Your task to perform on an android device: Open the map Image 0: 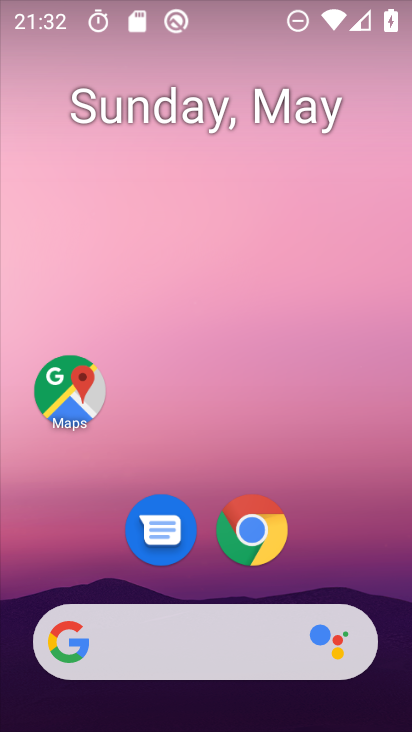
Step 0: drag from (272, 675) to (275, 117)
Your task to perform on an android device: Open the map Image 1: 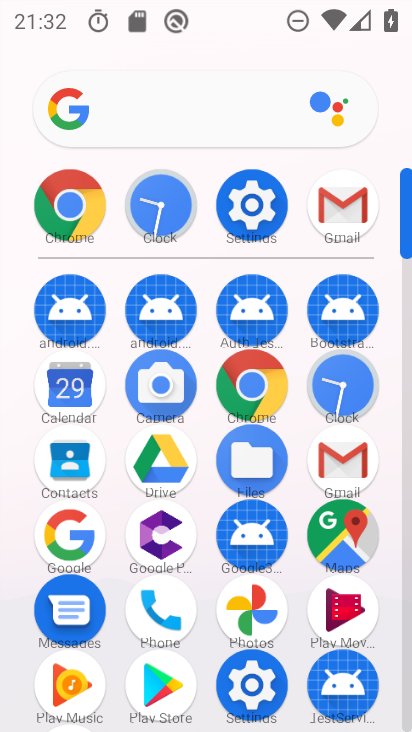
Step 1: click (339, 535)
Your task to perform on an android device: Open the map Image 2: 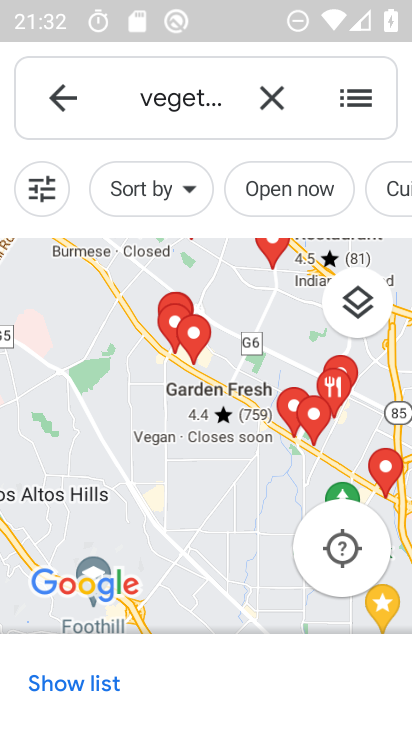
Step 2: click (278, 369)
Your task to perform on an android device: Open the map Image 3: 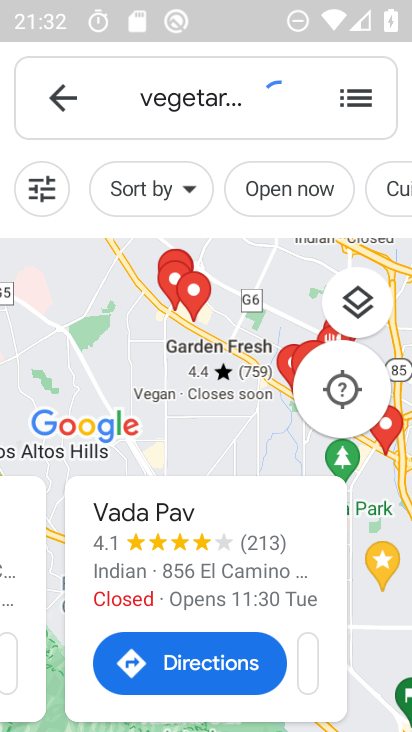
Step 3: task complete